Your task to perform on an android device: open device folders in google photos Image 0: 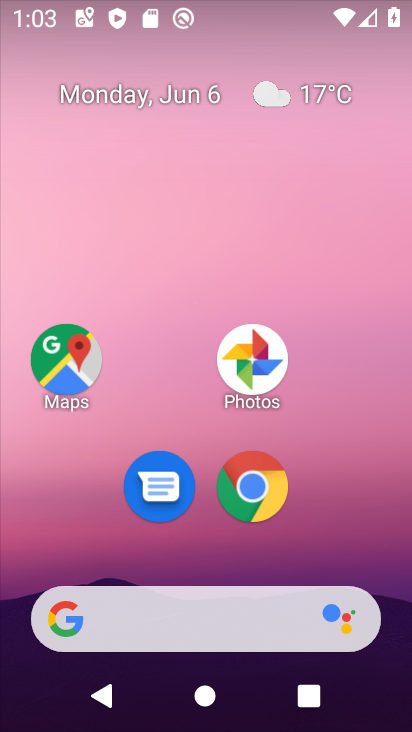
Step 0: click (262, 381)
Your task to perform on an android device: open device folders in google photos Image 1: 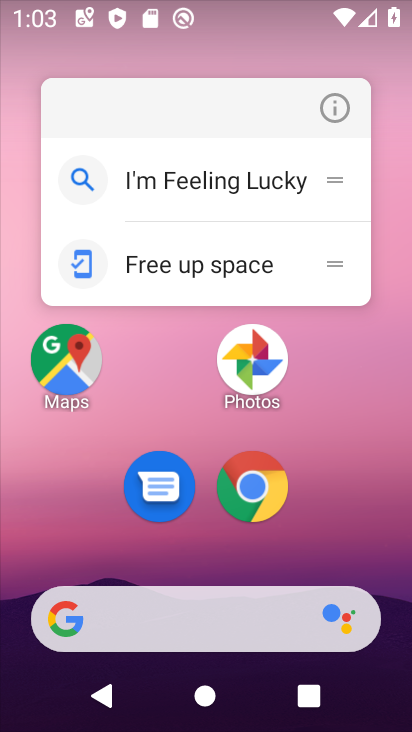
Step 1: click (243, 358)
Your task to perform on an android device: open device folders in google photos Image 2: 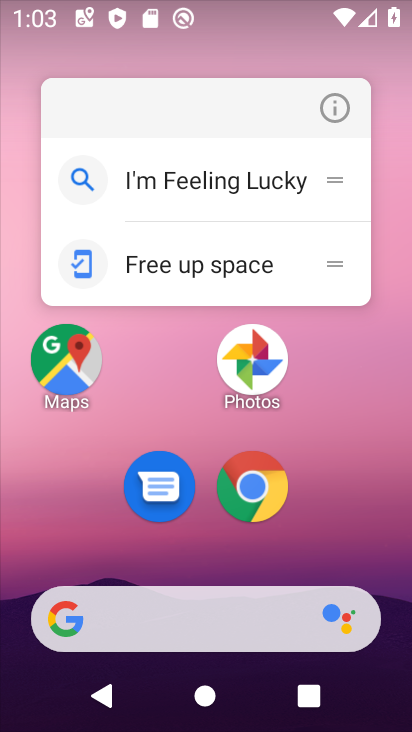
Step 2: click (245, 357)
Your task to perform on an android device: open device folders in google photos Image 3: 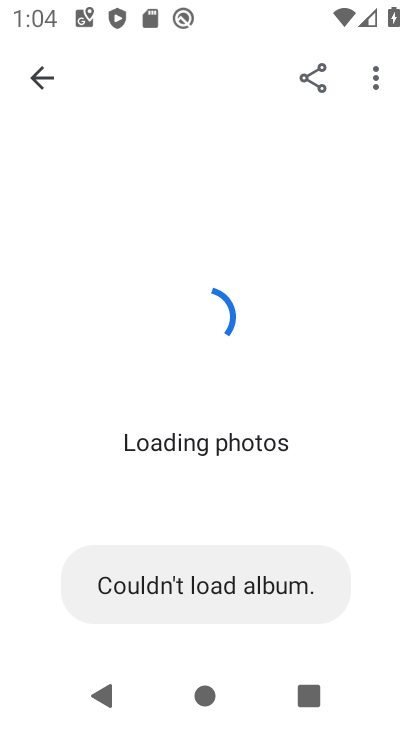
Step 3: click (52, 90)
Your task to perform on an android device: open device folders in google photos Image 4: 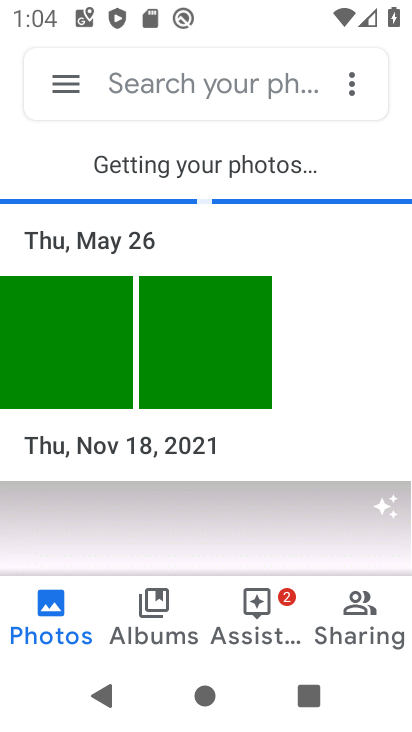
Step 4: click (50, 70)
Your task to perform on an android device: open device folders in google photos Image 5: 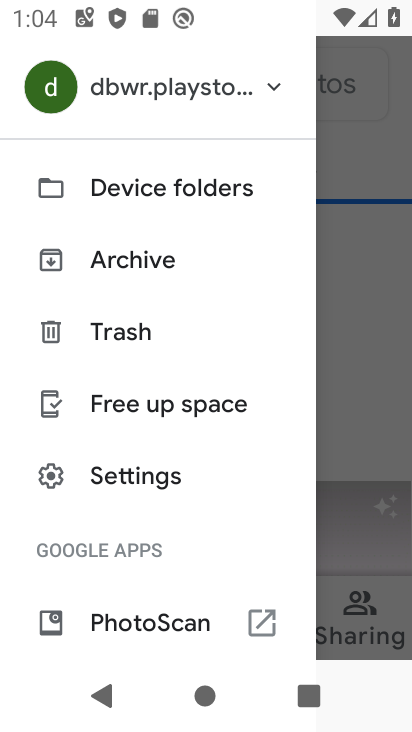
Step 5: click (170, 189)
Your task to perform on an android device: open device folders in google photos Image 6: 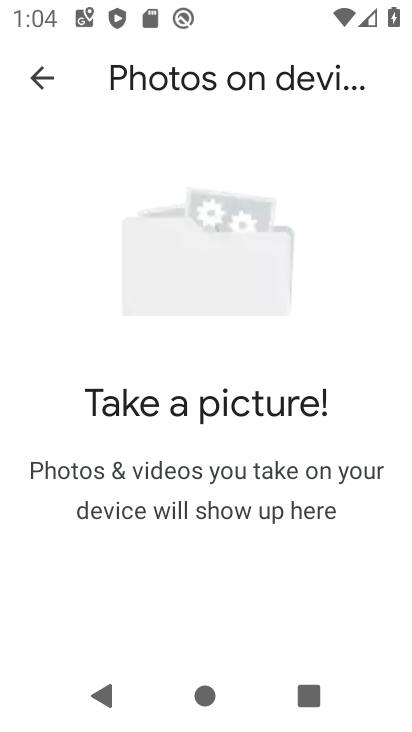
Step 6: task complete